Your task to perform on an android device: Open sound settings Image 0: 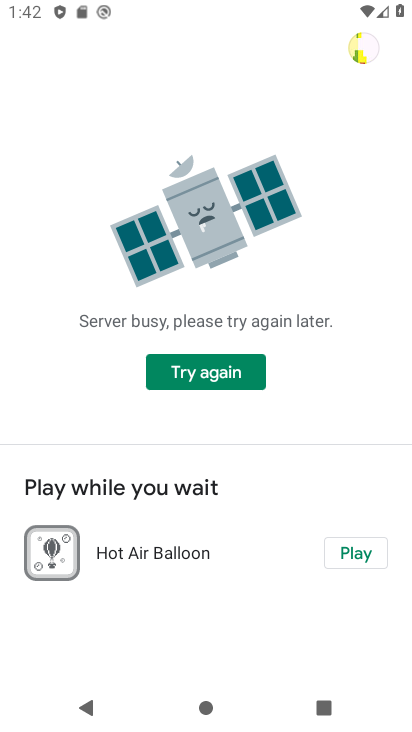
Step 0: press home button
Your task to perform on an android device: Open sound settings Image 1: 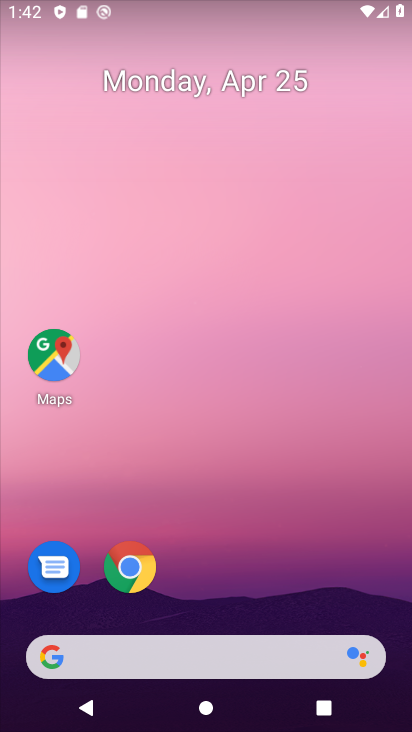
Step 1: drag from (293, 576) to (250, 129)
Your task to perform on an android device: Open sound settings Image 2: 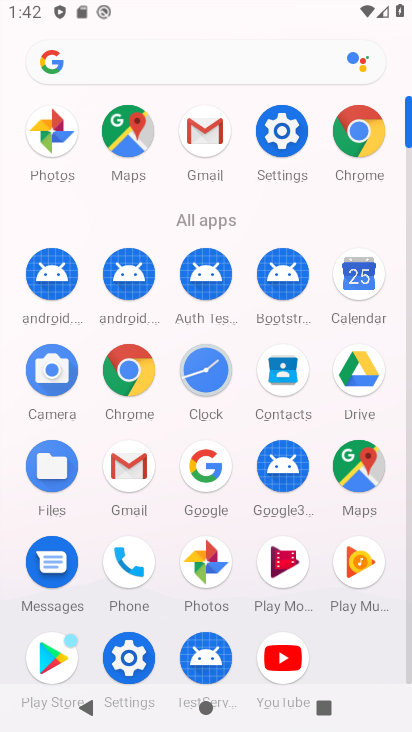
Step 2: click (285, 146)
Your task to perform on an android device: Open sound settings Image 3: 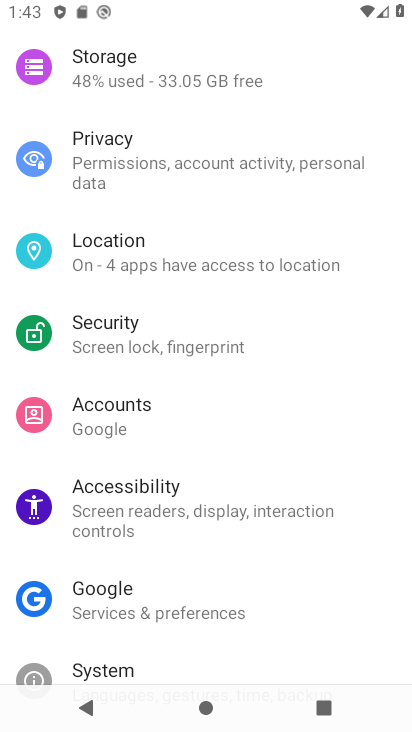
Step 3: drag from (268, 198) to (206, 653)
Your task to perform on an android device: Open sound settings Image 4: 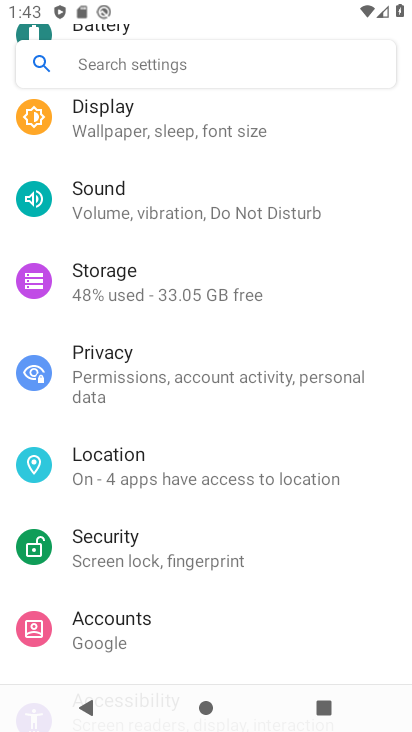
Step 4: click (242, 212)
Your task to perform on an android device: Open sound settings Image 5: 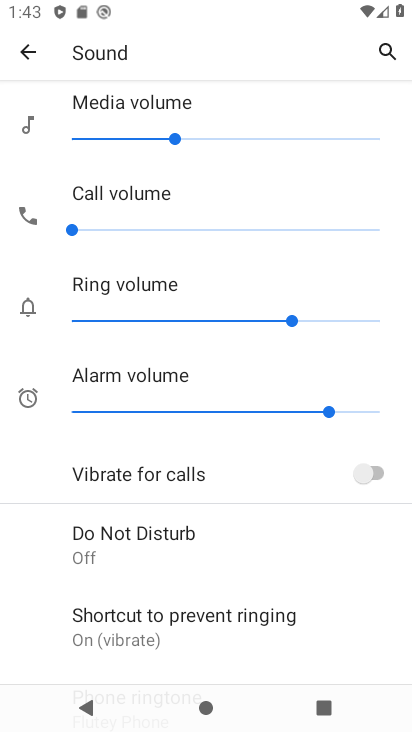
Step 5: task complete